Your task to perform on an android device: Open the map Image 0: 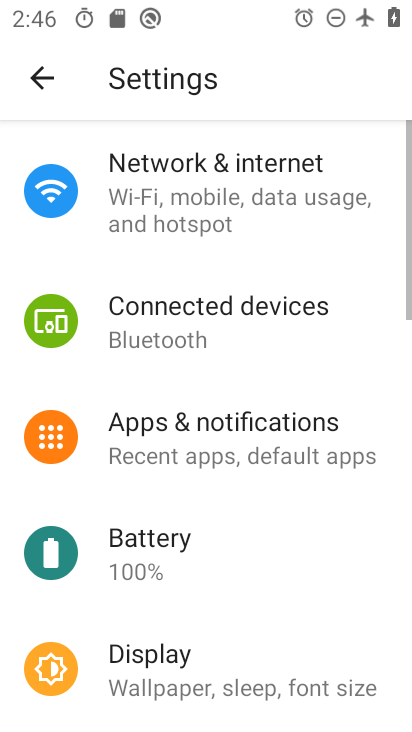
Step 0: press home button
Your task to perform on an android device: Open the map Image 1: 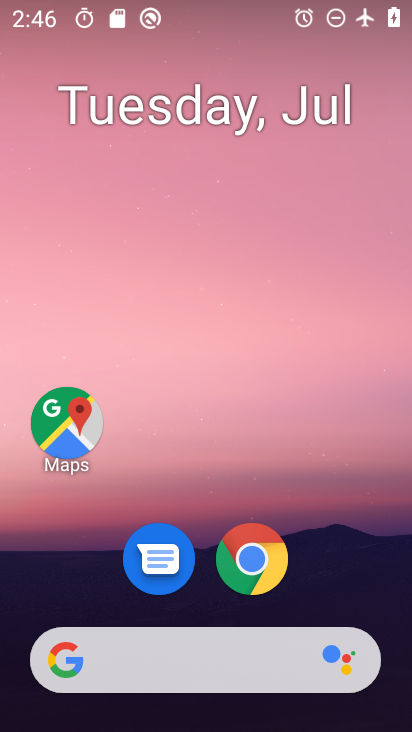
Step 1: drag from (337, 586) to (353, 195)
Your task to perform on an android device: Open the map Image 2: 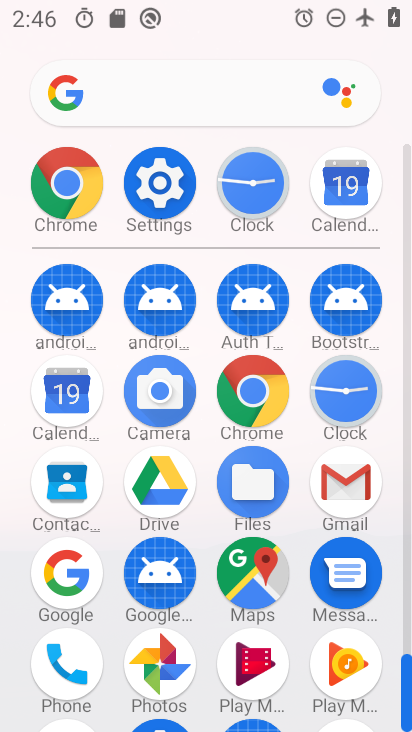
Step 2: click (256, 573)
Your task to perform on an android device: Open the map Image 3: 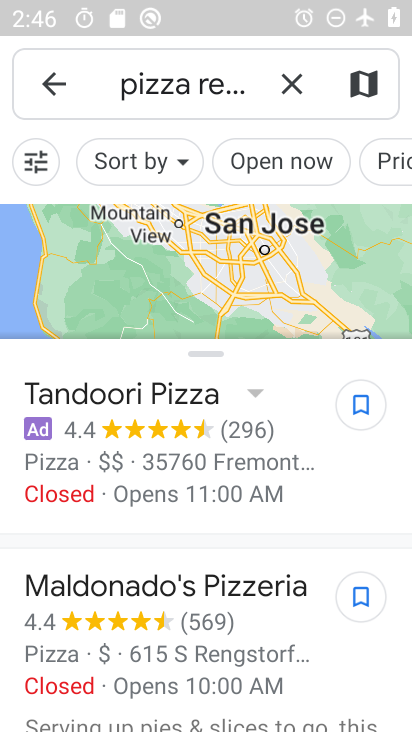
Step 3: task complete